Your task to perform on an android device: Is it going to rain this weekend? Image 0: 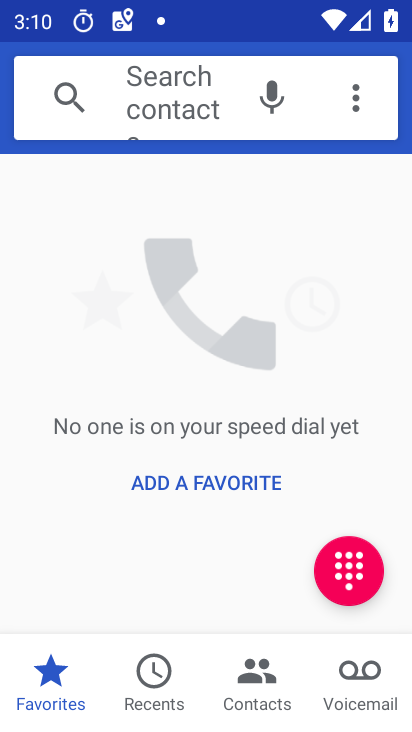
Step 0: press home button
Your task to perform on an android device: Is it going to rain this weekend? Image 1: 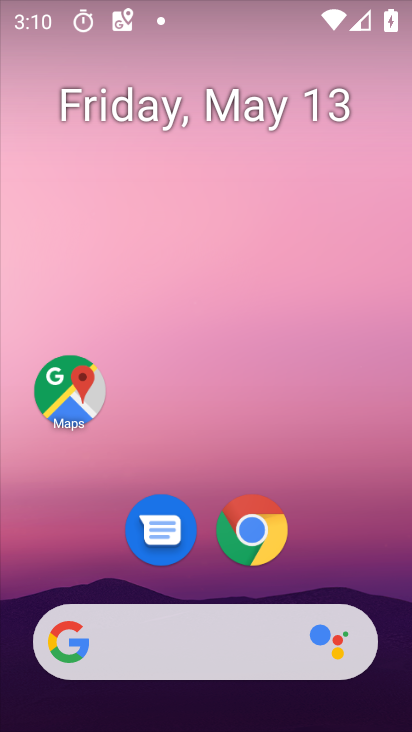
Step 1: click (260, 520)
Your task to perform on an android device: Is it going to rain this weekend? Image 2: 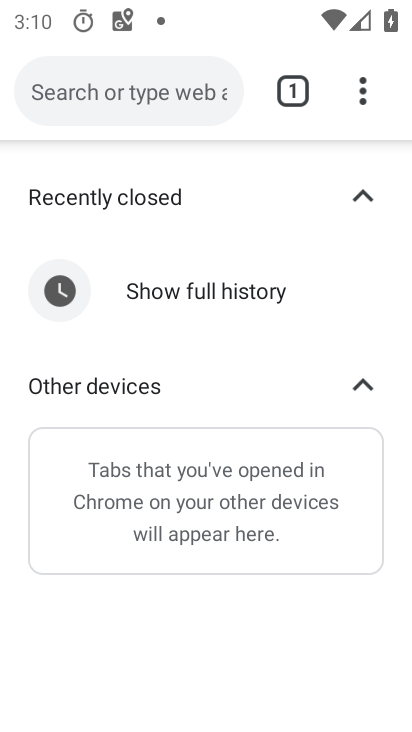
Step 2: click (191, 103)
Your task to perform on an android device: Is it going to rain this weekend? Image 3: 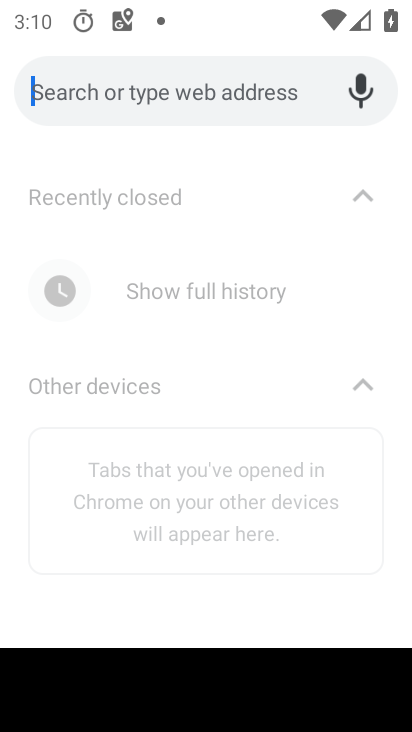
Step 3: type "weather"
Your task to perform on an android device: Is it going to rain this weekend? Image 4: 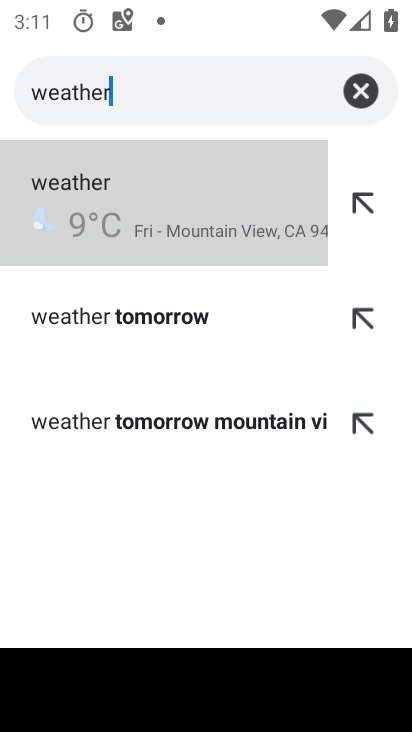
Step 4: click (189, 210)
Your task to perform on an android device: Is it going to rain this weekend? Image 5: 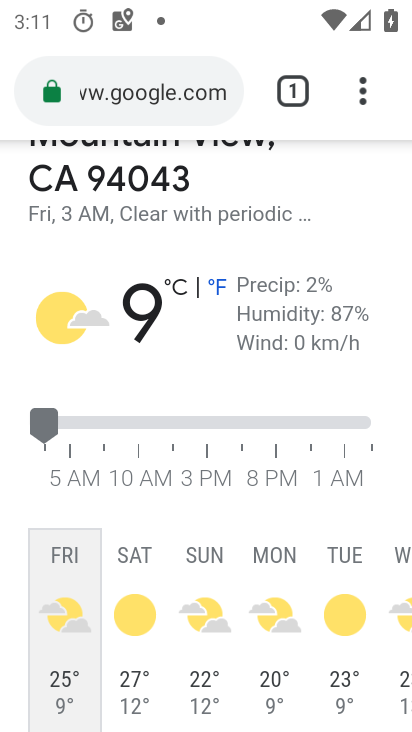
Step 5: task complete